Your task to perform on an android device: Open Yahoo.com Image 0: 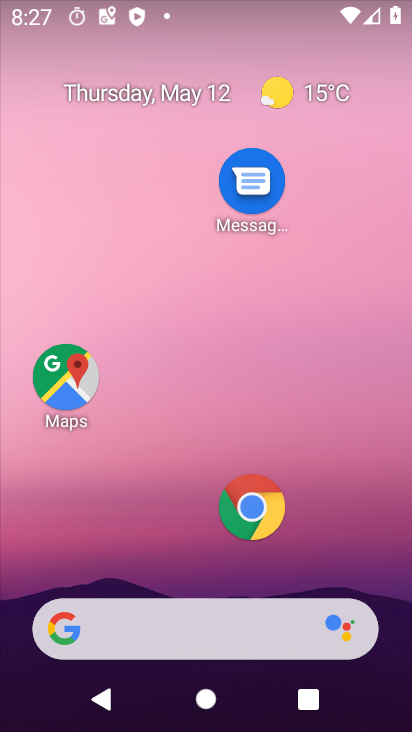
Step 0: click (244, 501)
Your task to perform on an android device: Open Yahoo.com Image 1: 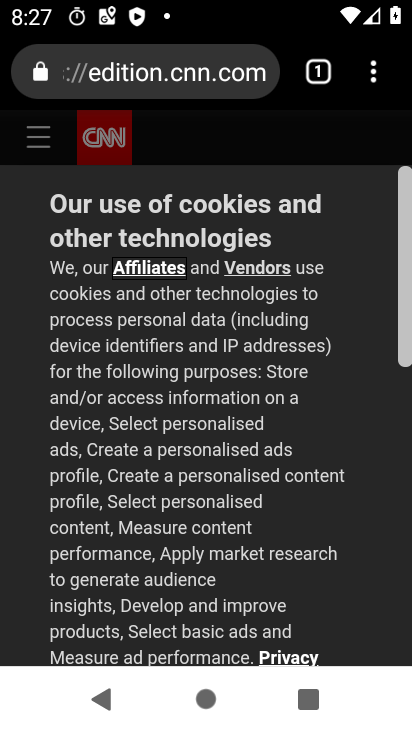
Step 1: click (243, 81)
Your task to perform on an android device: Open Yahoo.com Image 2: 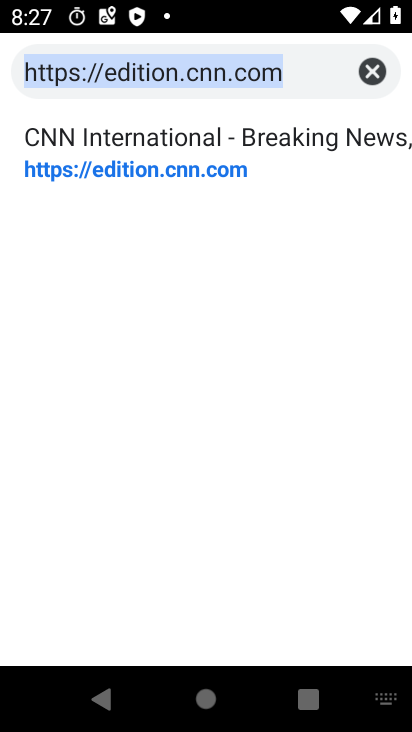
Step 2: type "yahoo.com"
Your task to perform on an android device: Open Yahoo.com Image 3: 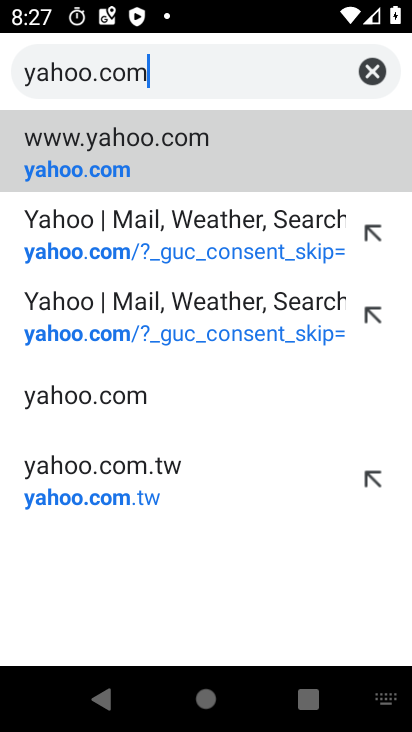
Step 3: click (123, 153)
Your task to perform on an android device: Open Yahoo.com Image 4: 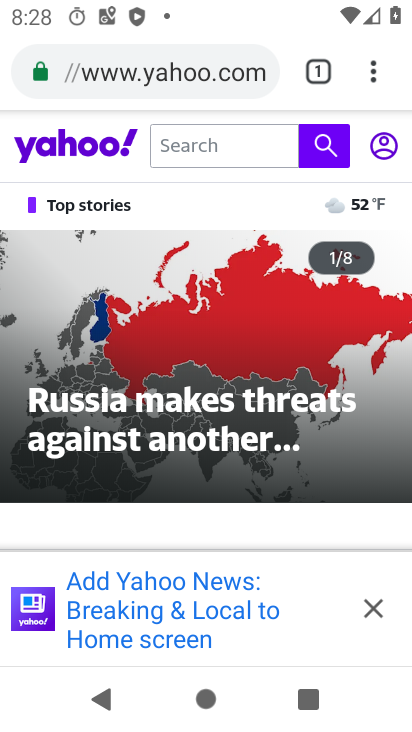
Step 4: task complete